Your task to perform on an android device: Go to wifi settings Image 0: 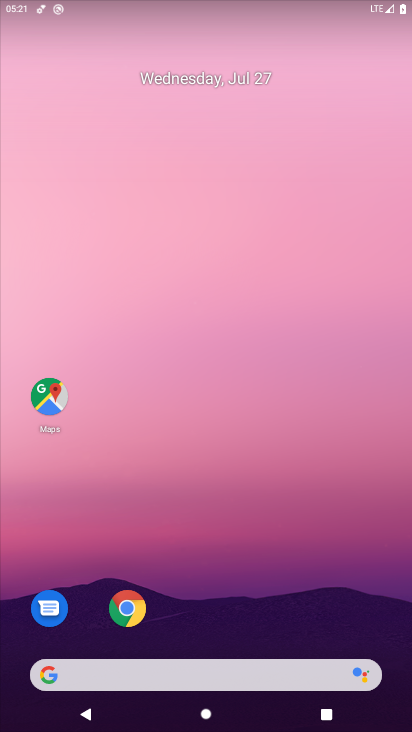
Step 0: press home button
Your task to perform on an android device: Go to wifi settings Image 1: 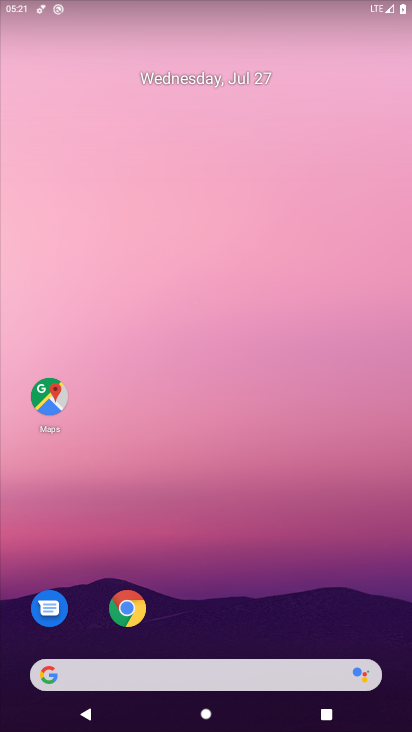
Step 1: drag from (211, 618) to (125, 110)
Your task to perform on an android device: Go to wifi settings Image 2: 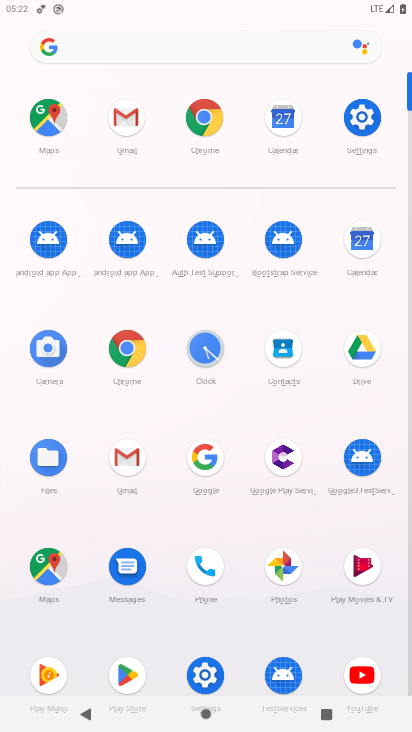
Step 2: click (355, 115)
Your task to perform on an android device: Go to wifi settings Image 3: 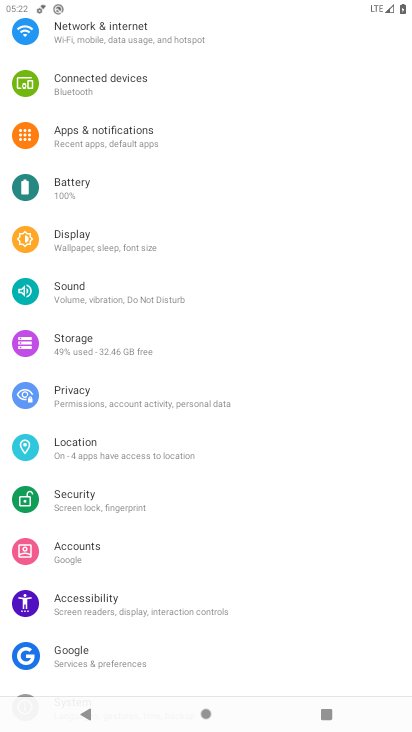
Step 3: click (106, 36)
Your task to perform on an android device: Go to wifi settings Image 4: 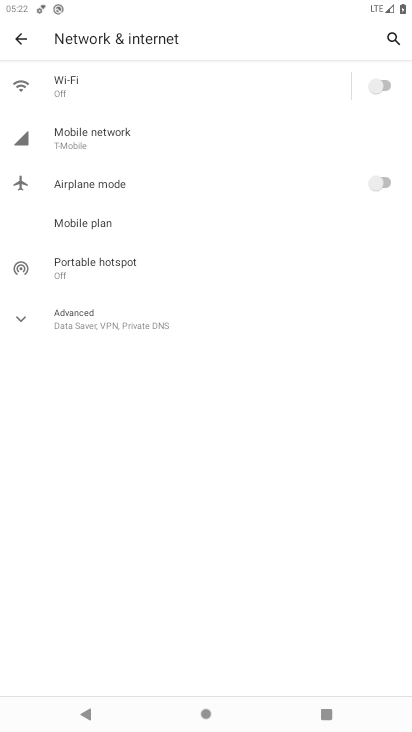
Step 4: click (234, 101)
Your task to perform on an android device: Go to wifi settings Image 5: 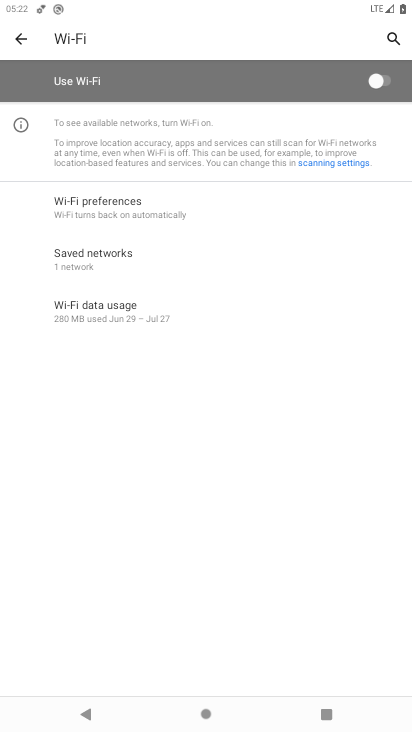
Step 5: click (372, 91)
Your task to perform on an android device: Go to wifi settings Image 6: 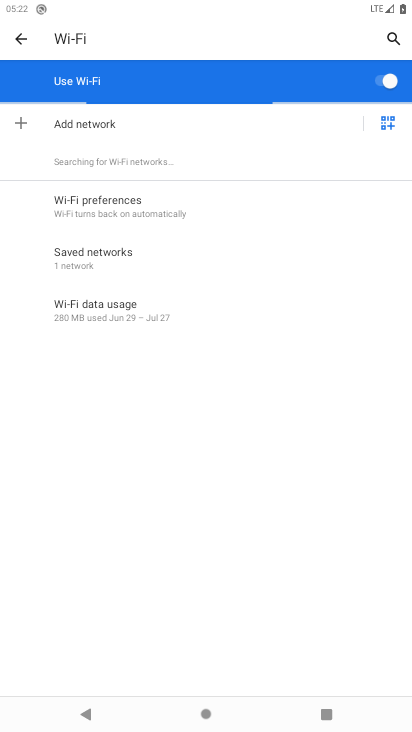
Step 6: task complete